Your task to perform on an android device: check android version Image 0: 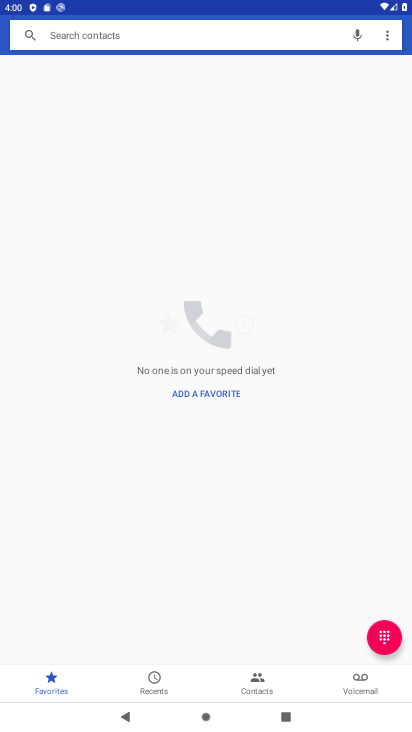
Step 0: press home button
Your task to perform on an android device: check android version Image 1: 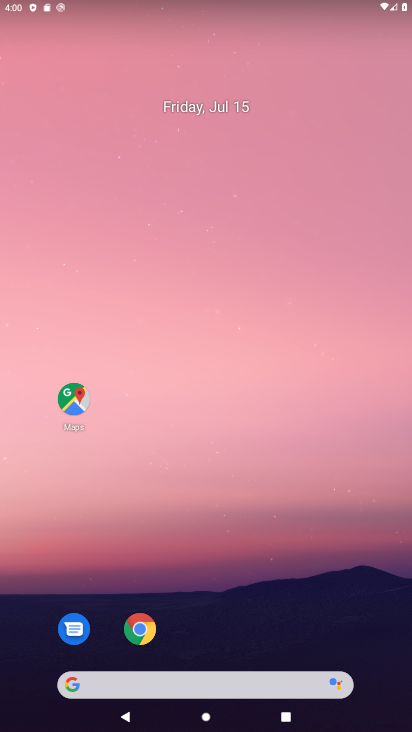
Step 1: drag from (244, 579) to (270, 305)
Your task to perform on an android device: check android version Image 2: 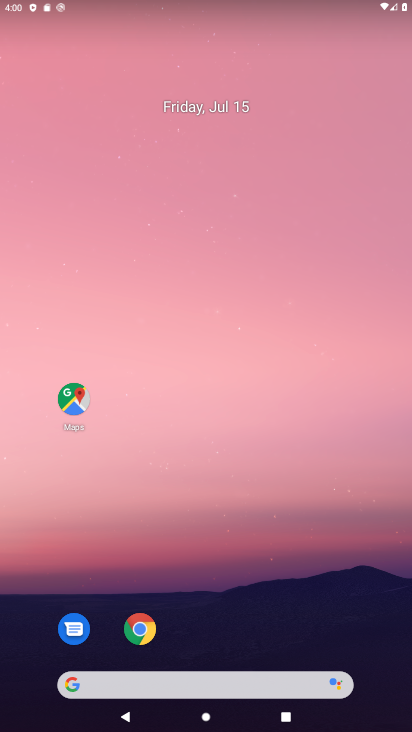
Step 2: drag from (187, 630) to (393, 2)
Your task to perform on an android device: check android version Image 3: 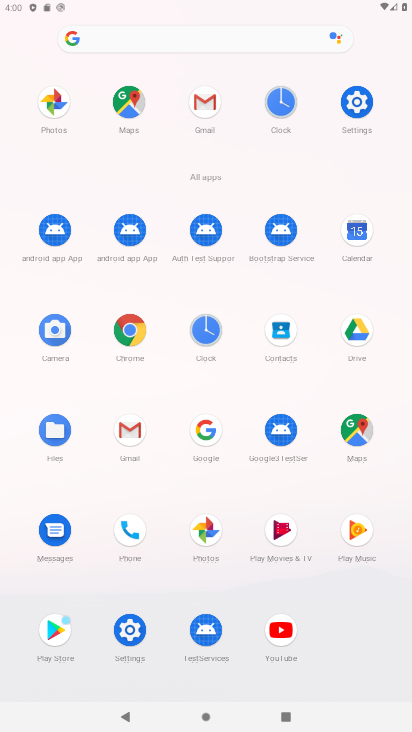
Step 3: click (363, 195)
Your task to perform on an android device: check android version Image 4: 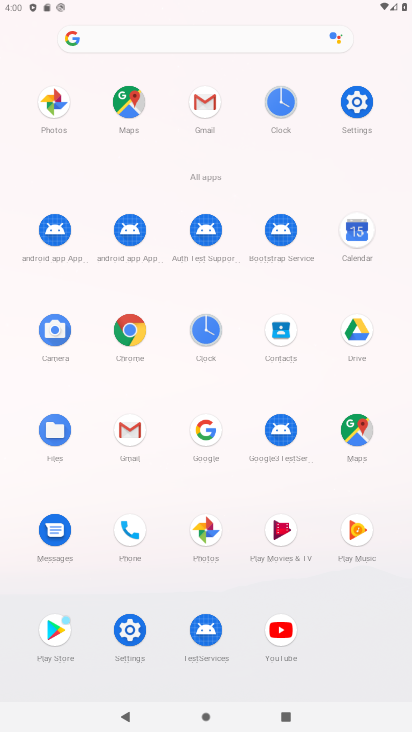
Step 4: click (360, 117)
Your task to perform on an android device: check android version Image 5: 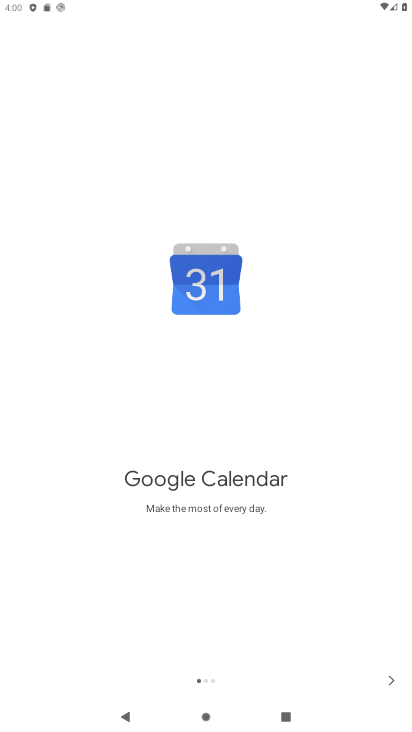
Step 5: click (388, 675)
Your task to perform on an android device: check android version Image 6: 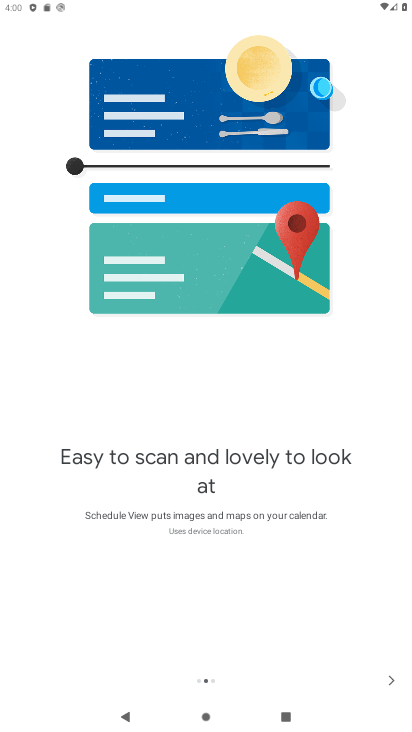
Step 6: click (388, 688)
Your task to perform on an android device: check android version Image 7: 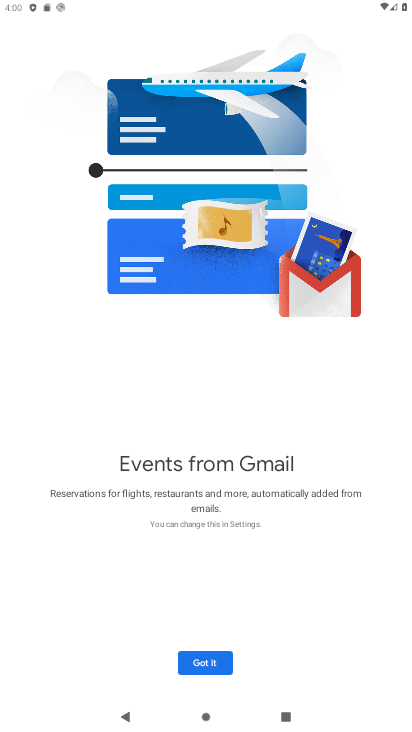
Step 7: click (224, 659)
Your task to perform on an android device: check android version Image 8: 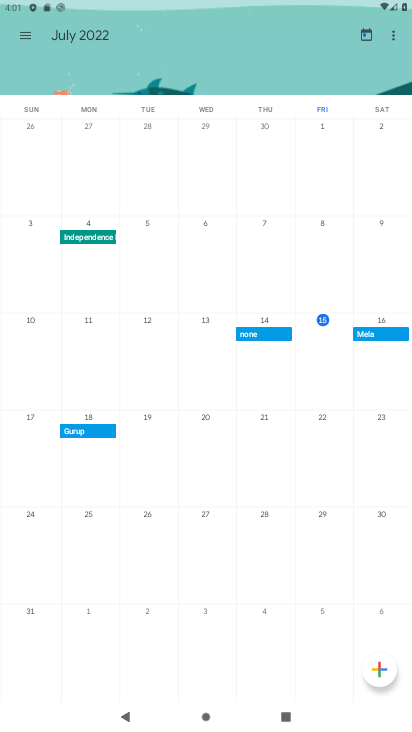
Step 8: press home button
Your task to perform on an android device: check android version Image 9: 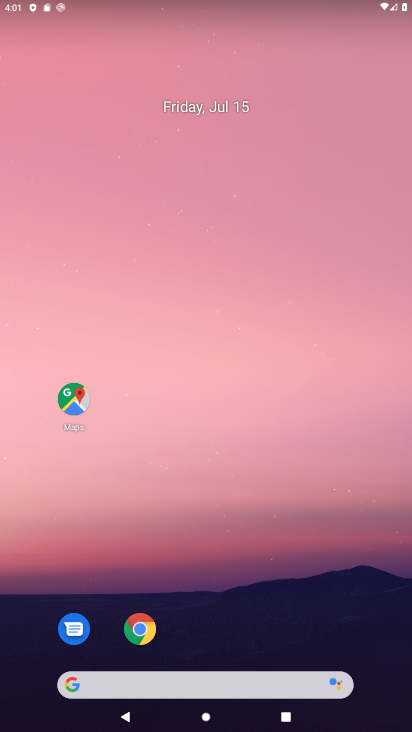
Step 9: click (204, 89)
Your task to perform on an android device: check android version Image 10: 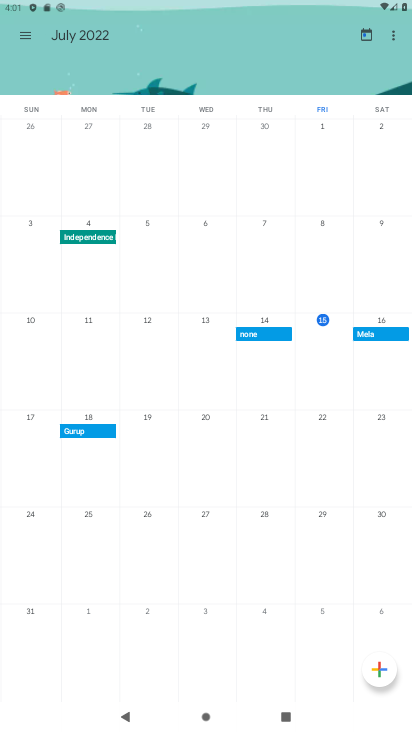
Step 10: press home button
Your task to perform on an android device: check android version Image 11: 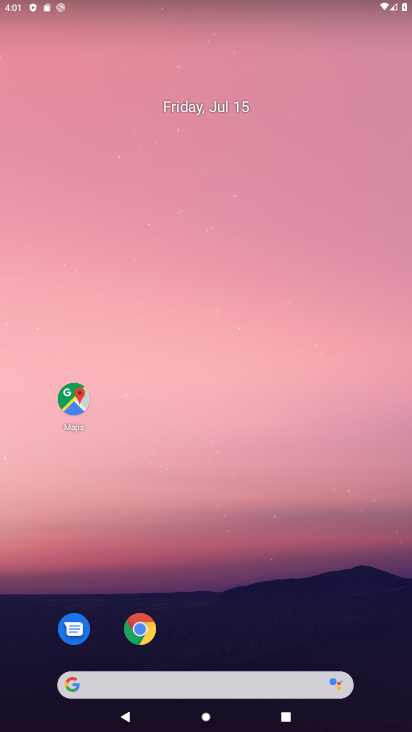
Step 11: drag from (196, 610) to (182, 135)
Your task to perform on an android device: check android version Image 12: 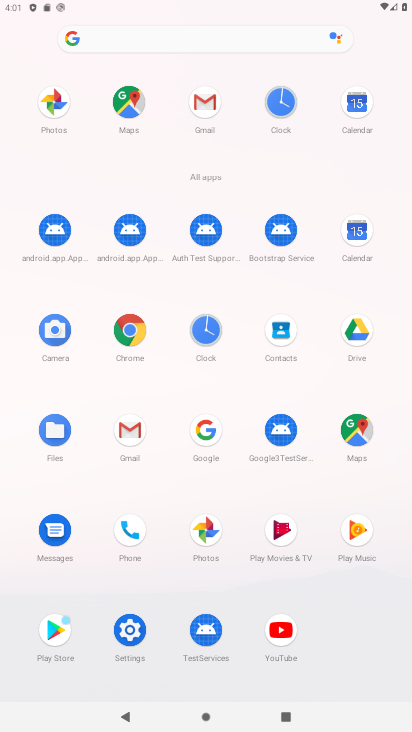
Step 12: click (126, 640)
Your task to perform on an android device: check android version Image 13: 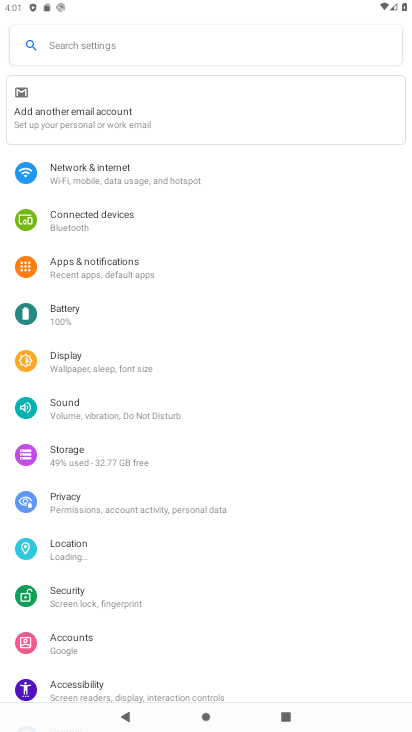
Step 13: drag from (97, 409) to (97, 195)
Your task to perform on an android device: check android version Image 14: 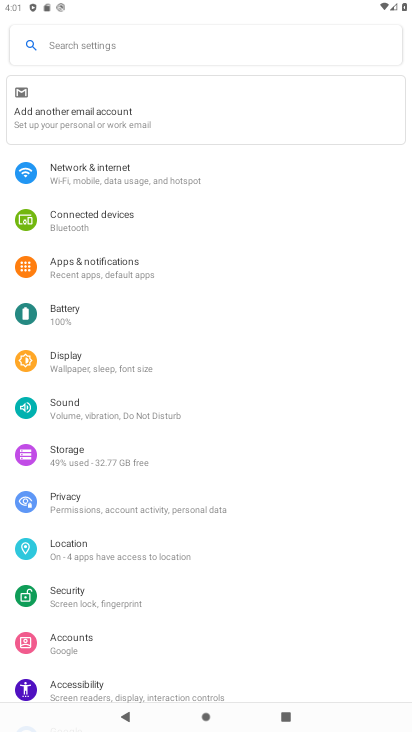
Step 14: drag from (65, 572) to (85, 275)
Your task to perform on an android device: check android version Image 15: 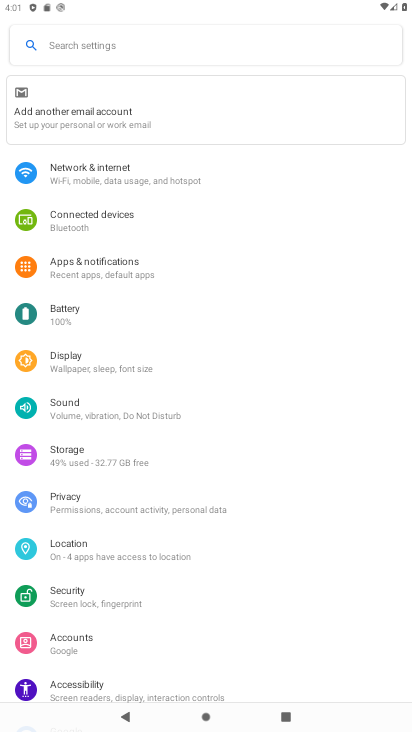
Step 15: drag from (85, 641) to (137, 316)
Your task to perform on an android device: check android version Image 16: 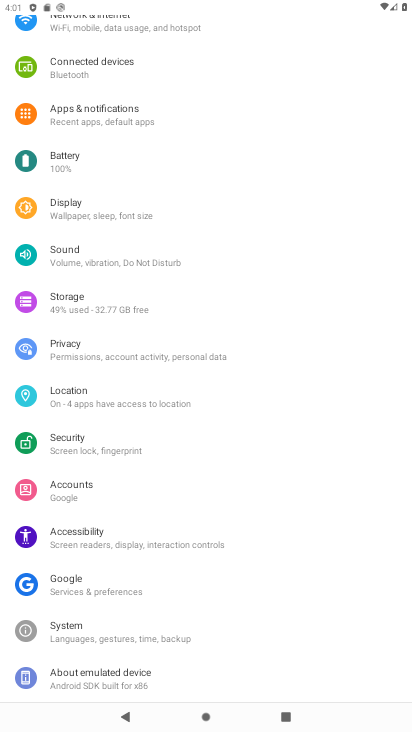
Step 16: click (52, 665)
Your task to perform on an android device: check android version Image 17: 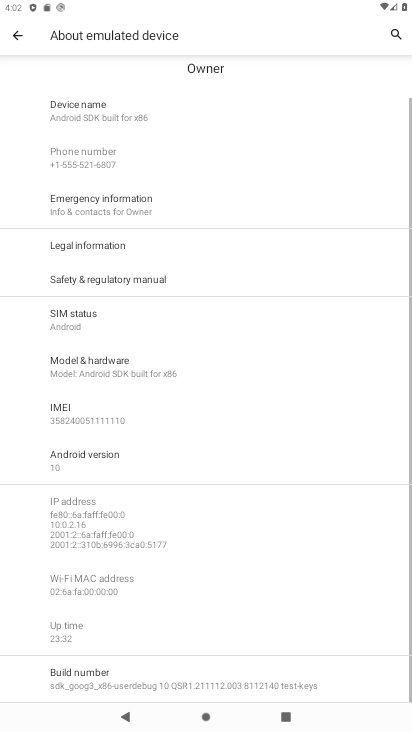
Step 17: click (90, 472)
Your task to perform on an android device: check android version Image 18: 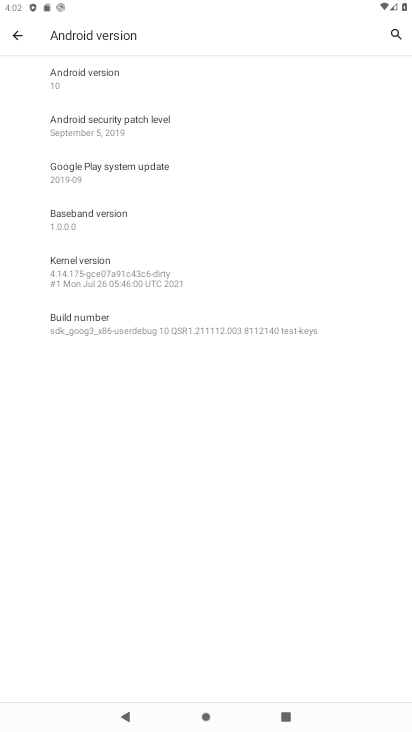
Step 18: task complete